Your task to perform on an android device: toggle pop-ups in chrome Image 0: 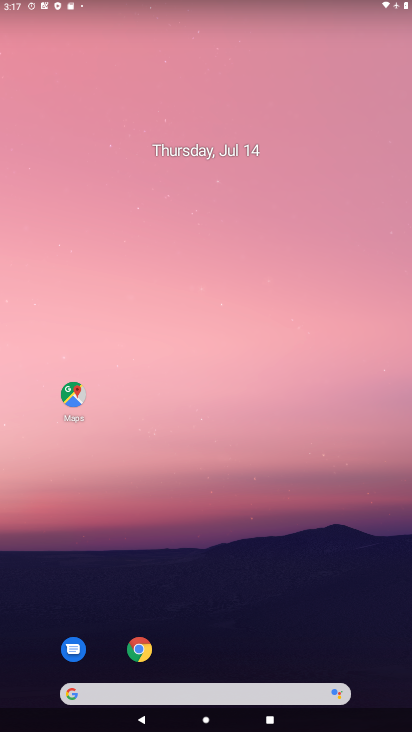
Step 0: drag from (232, 583) to (154, 3)
Your task to perform on an android device: toggle pop-ups in chrome Image 1: 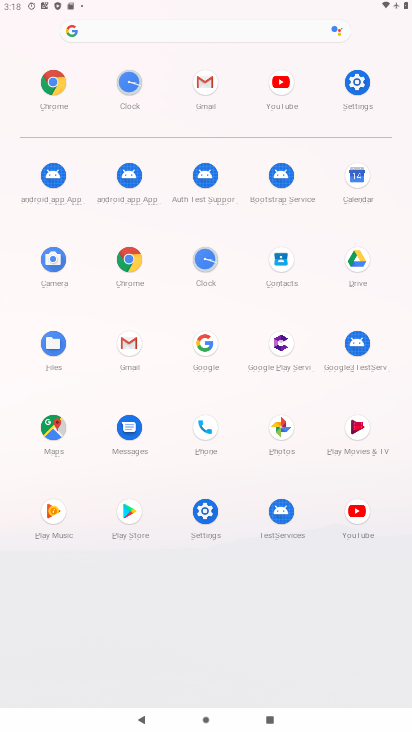
Step 1: click (131, 272)
Your task to perform on an android device: toggle pop-ups in chrome Image 2: 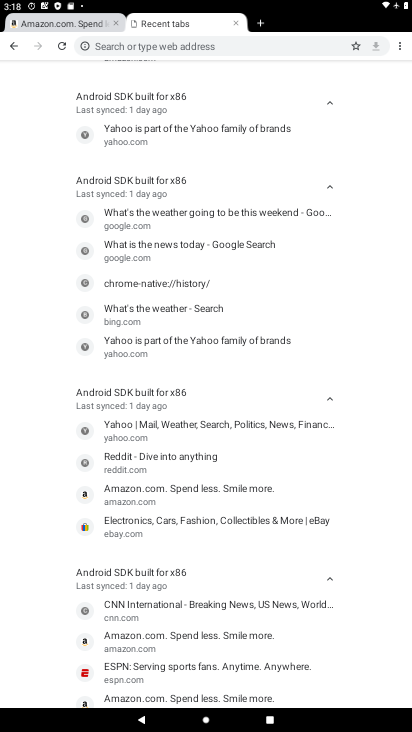
Step 2: click (399, 46)
Your task to perform on an android device: toggle pop-ups in chrome Image 3: 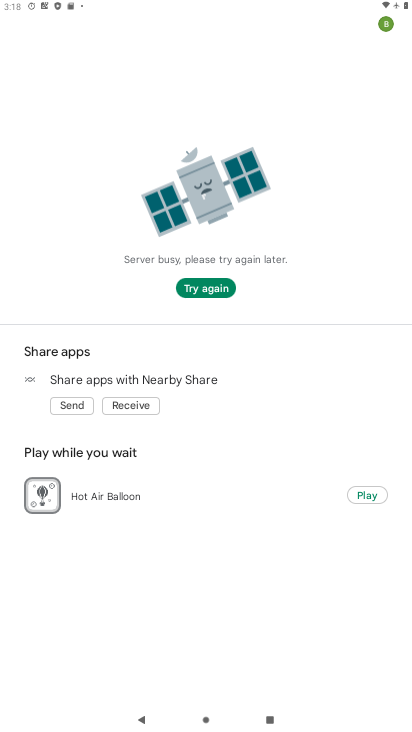
Step 3: press back button
Your task to perform on an android device: toggle pop-ups in chrome Image 4: 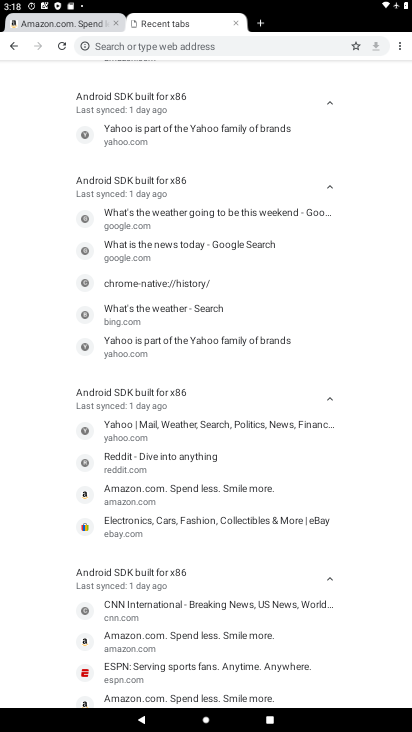
Step 4: click (402, 41)
Your task to perform on an android device: toggle pop-ups in chrome Image 5: 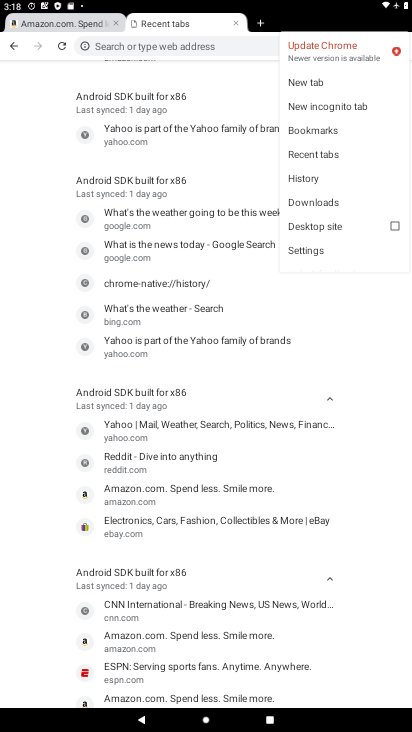
Step 5: click (299, 250)
Your task to perform on an android device: toggle pop-ups in chrome Image 6: 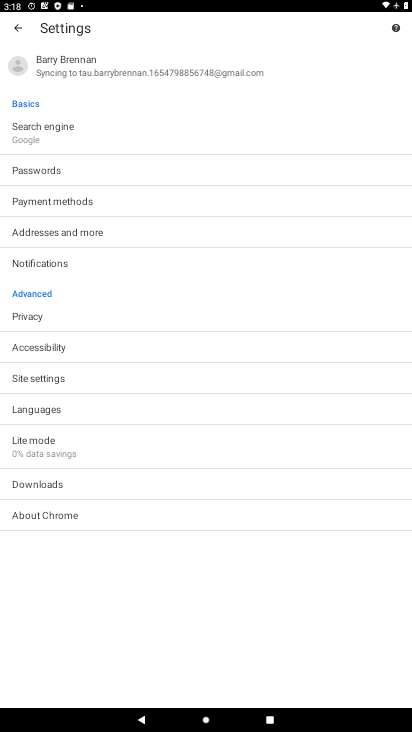
Step 6: click (38, 381)
Your task to perform on an android device: toggle pop-ups in chrome Image 7: 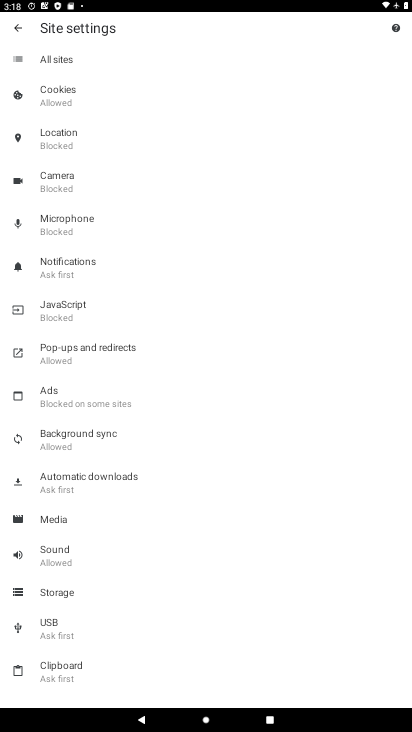
Step 7: click (81, 354)
Your task to perform on an android device: toggle pop-ups in chrome Image 8: 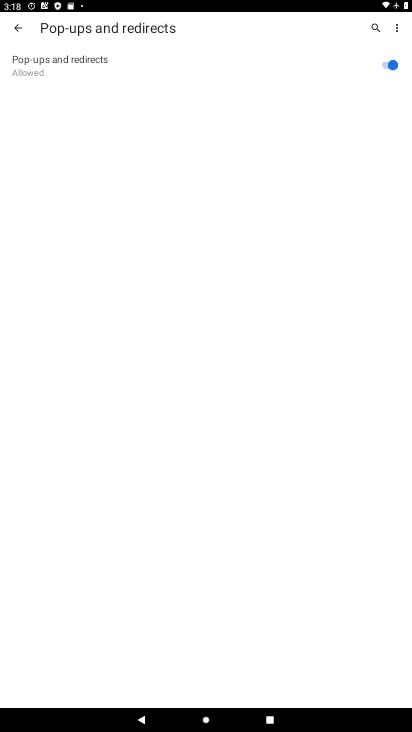
Step 8: click (367, 57)
Your task to perform on an android device: toggle pop-ups in chrome Image 9: 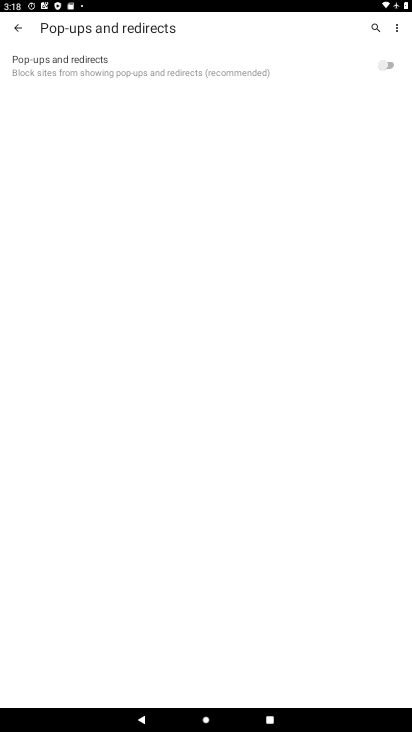
Step 9: task complete